Your task to perform on an android device: stop showing notifications on the lock screen Image 0: 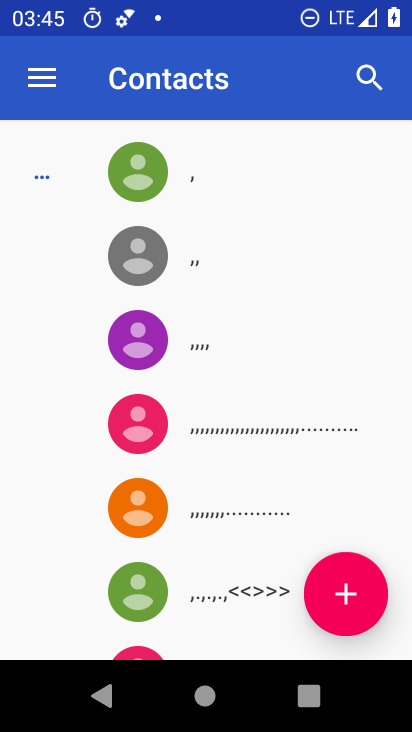
Step 0: press home button
Your task to perform on an android device: stop showing notifications on the lock screen Image 1: 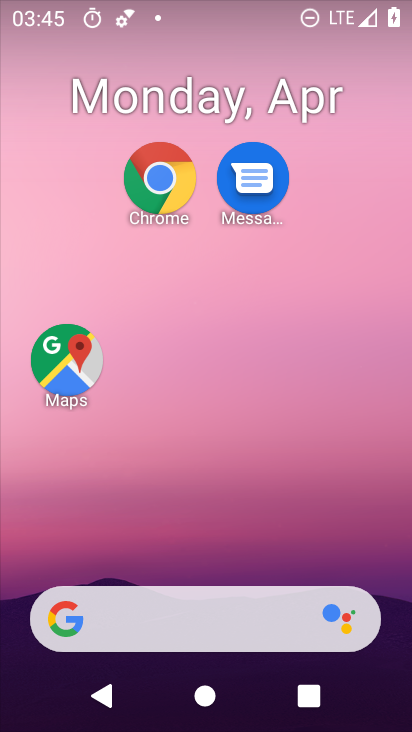
Step 1: drag from (239, 578) to (265, 142)
Your task to perform on an android device: stop showing notifications on the lock screen Image 2: 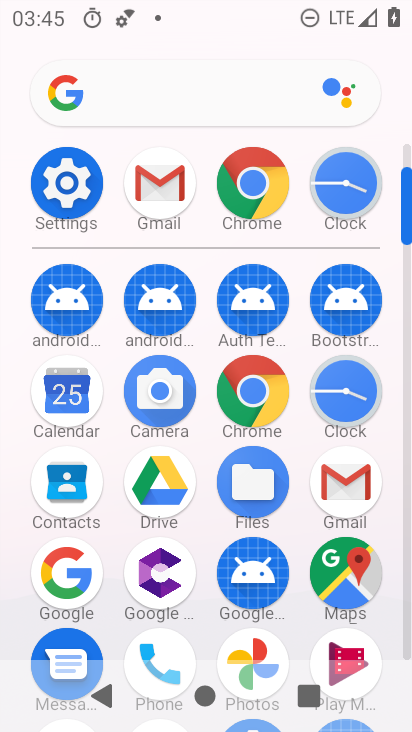
Step 2: drag from (195, 641) to (157, 158)
Your task to perform on an android device: stop showing notifications on the lock screen Image 3: 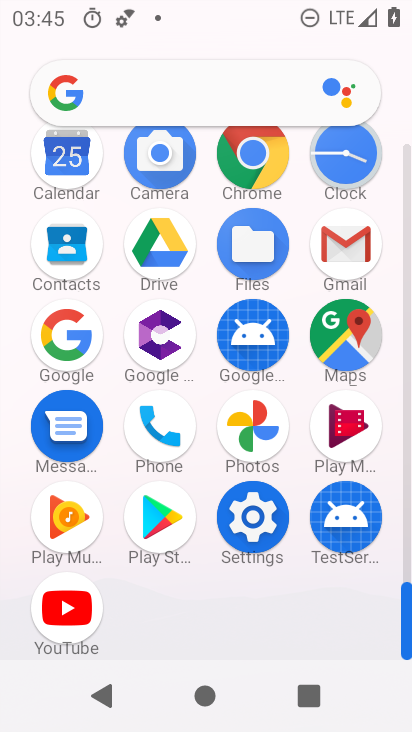
Step 3: click (258, 507)
Your task to perform on an android device: stop showing notifications on the lock screen Image 4: 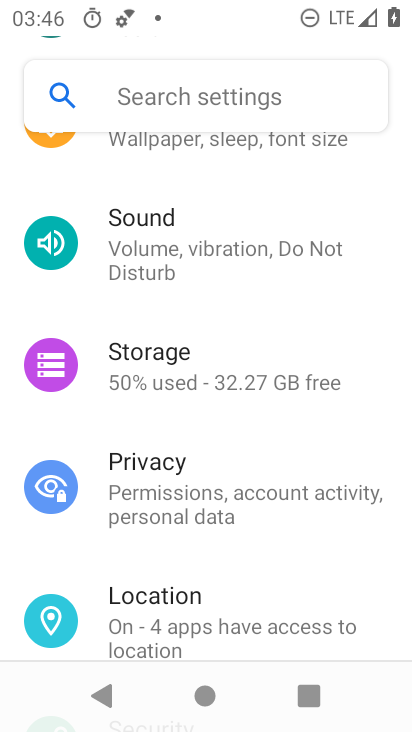
Step 4: drag from (282, 280) to (324, 634)
Your task to perform on an android device: stop showing notifications on the lock screen Image 5: 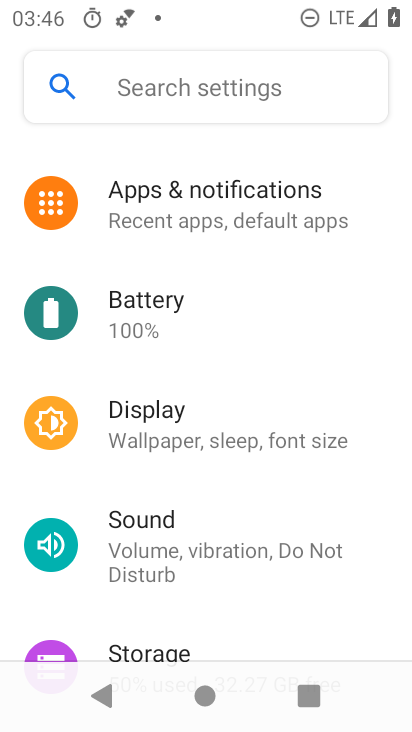
Step 5: click (271, 201)
Your task to perform on an android device: stop showing notifications on the lock screen Image 6: 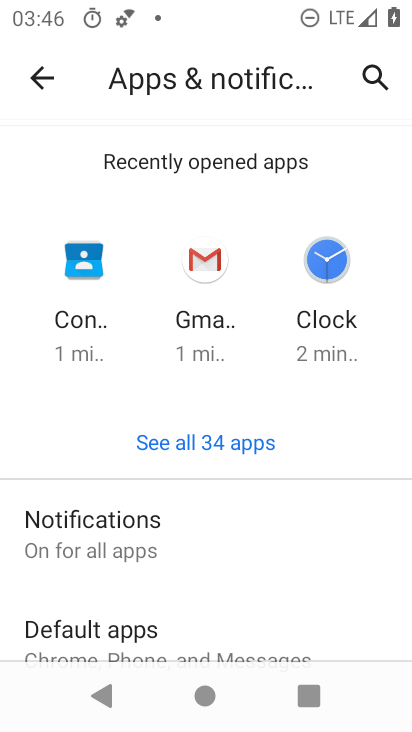
Step 6: drag from (207, 617) to (243, 103)
Your task to perform on an android device: stop showing notifications on the lock screen Image 7: 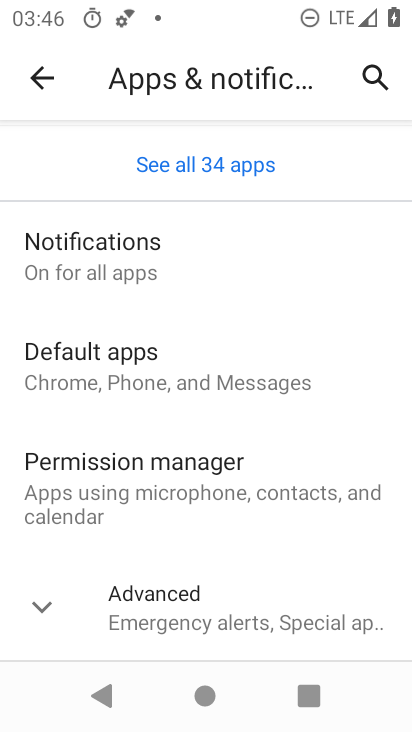
Step 7: click (181, 245)
Your task to perform on an android device: stop showing notifications on the lock screen Image 8: 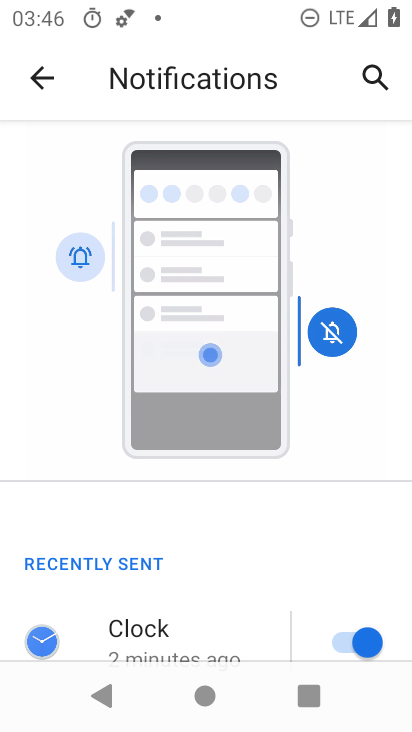
Step 8: drag from (227, 575) to (299, 105)
Your task to perform on an android device: stop showing notifications on the lock screen Image 9: 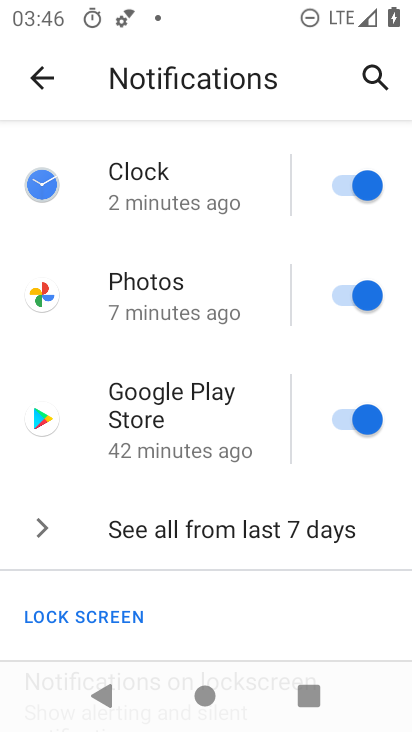
Step 9: drag from (243, 613) to (282, 152)
Your task to perform on an android device: stop showing notifications on the lock screen Image 10: 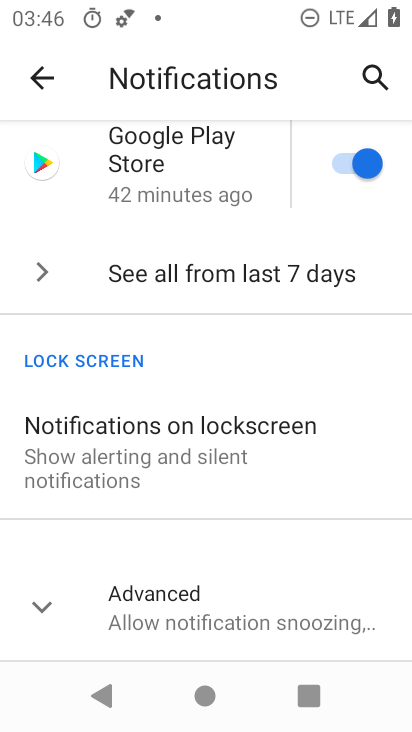
Step 10: click (205, 457)
Your task to perform on an android device: stop showing notifications on the lock screen Image 11: 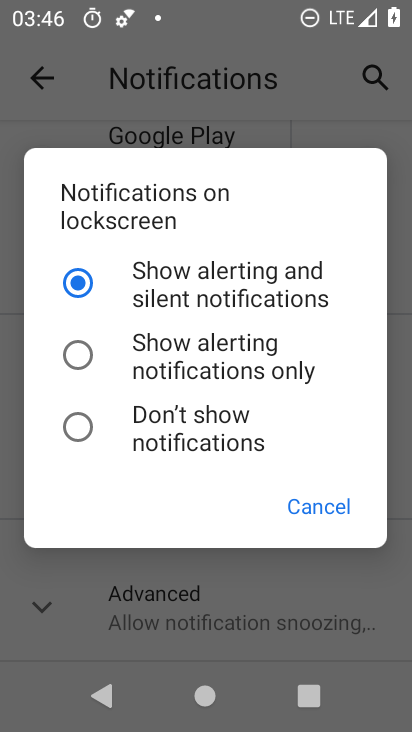
Step 11: click (214, 431)
Your task to perform on an android device: stop showing notifications on the lock screen Image 12: 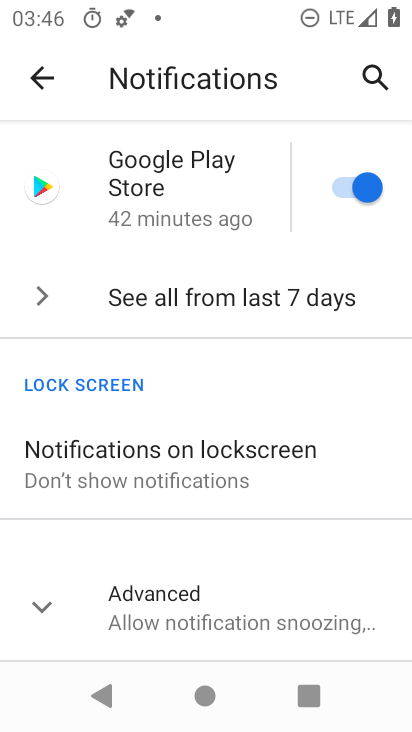
Step 12: task complete